Your task to perform on an android device: Go to ESPN.com Image 0: 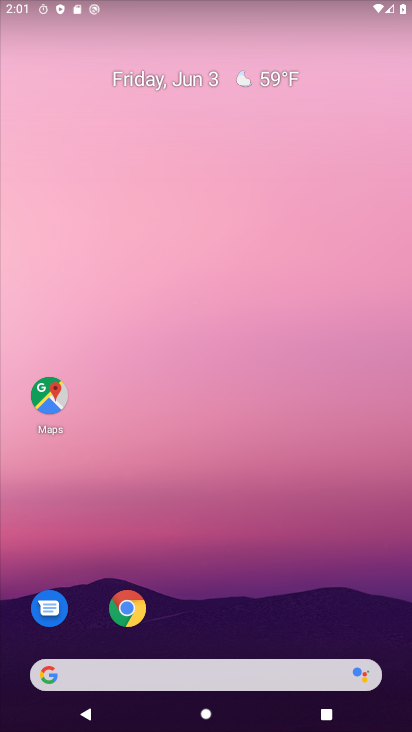
Step 0: click (135, 613)
Your task to perform on an android device: Go to ESPN.com Image 1: 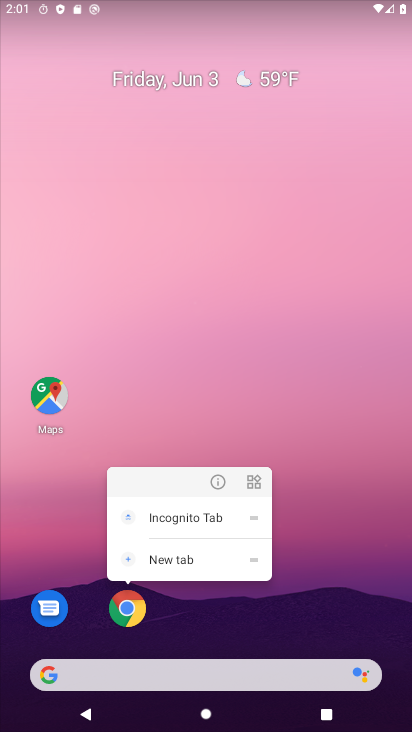
Step 1: click (135, 613)
Your task to perform on an android device: Go to ESPN.com Image 2: 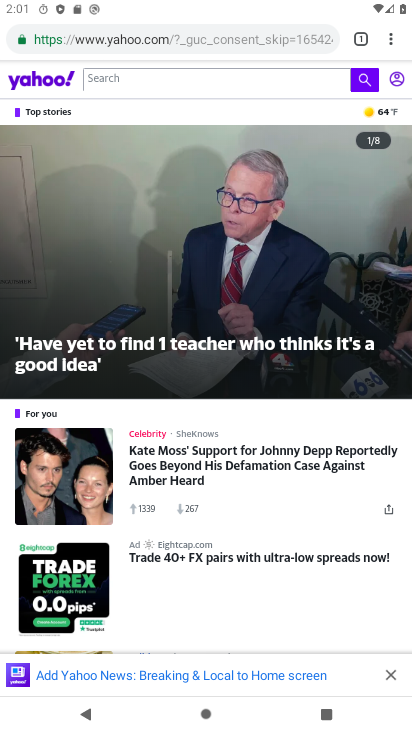
Step 2: click (168, 39)
Your task to perform on an android device: Go to ESPN.com Image 3: 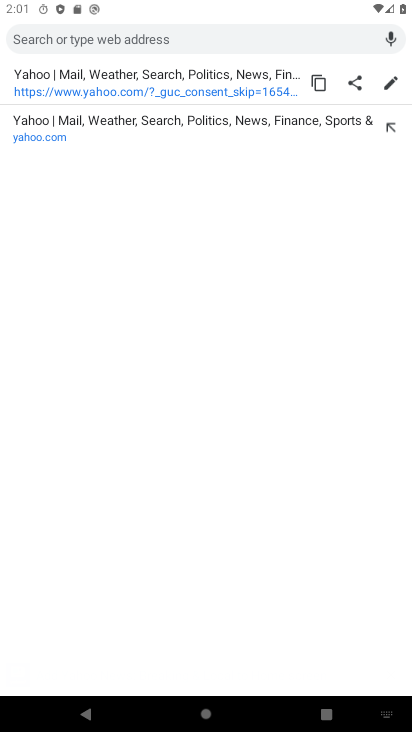
Step 3: type "espn.com"
Your task to perform on an android device: Go to ESPN.com Image 4: 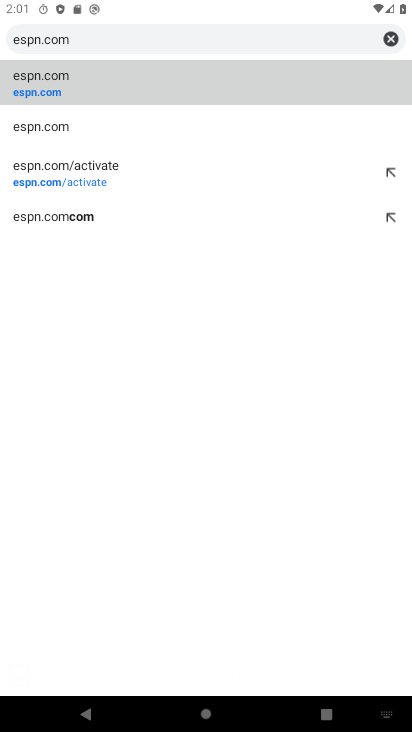
Step 4: click (134, 91)
Your task to perform on an android device: Go to ESPN.com Image 5: 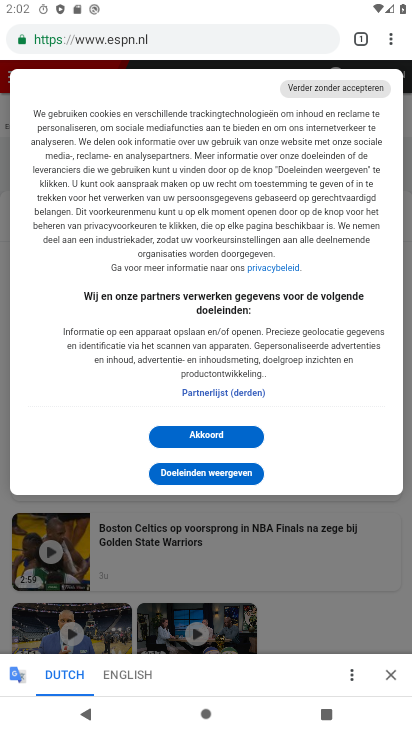
Step 5: task complete